Your task to perform on an android device: stop showing notifications on the lock screen Image 0: 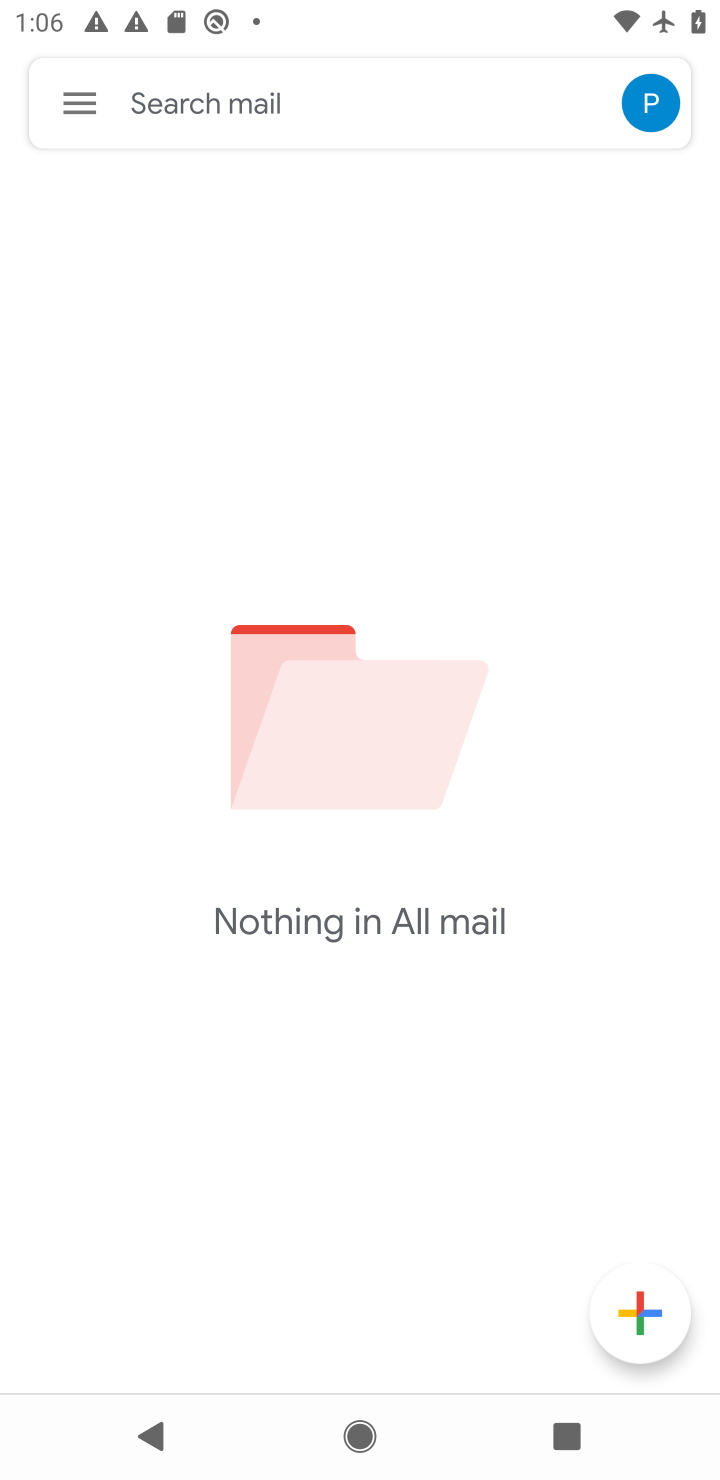
Step 0: press home button
Your task to perform on an android device: stop showing notifications on the lock screen Image 1: 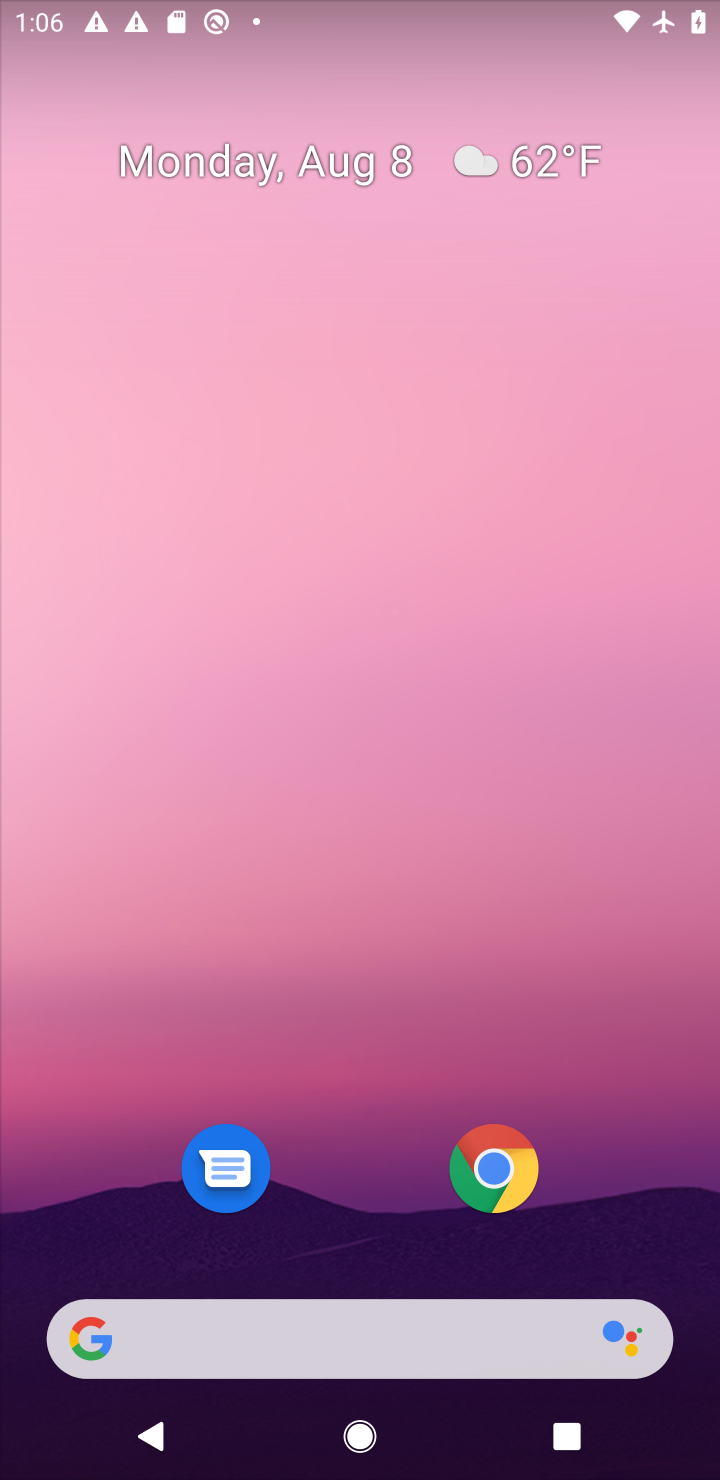
Step 1: drag from (378, 1244) to (170, 52)
Your task to perform on an android device: stop showing notifications on the lock screen Image 2: 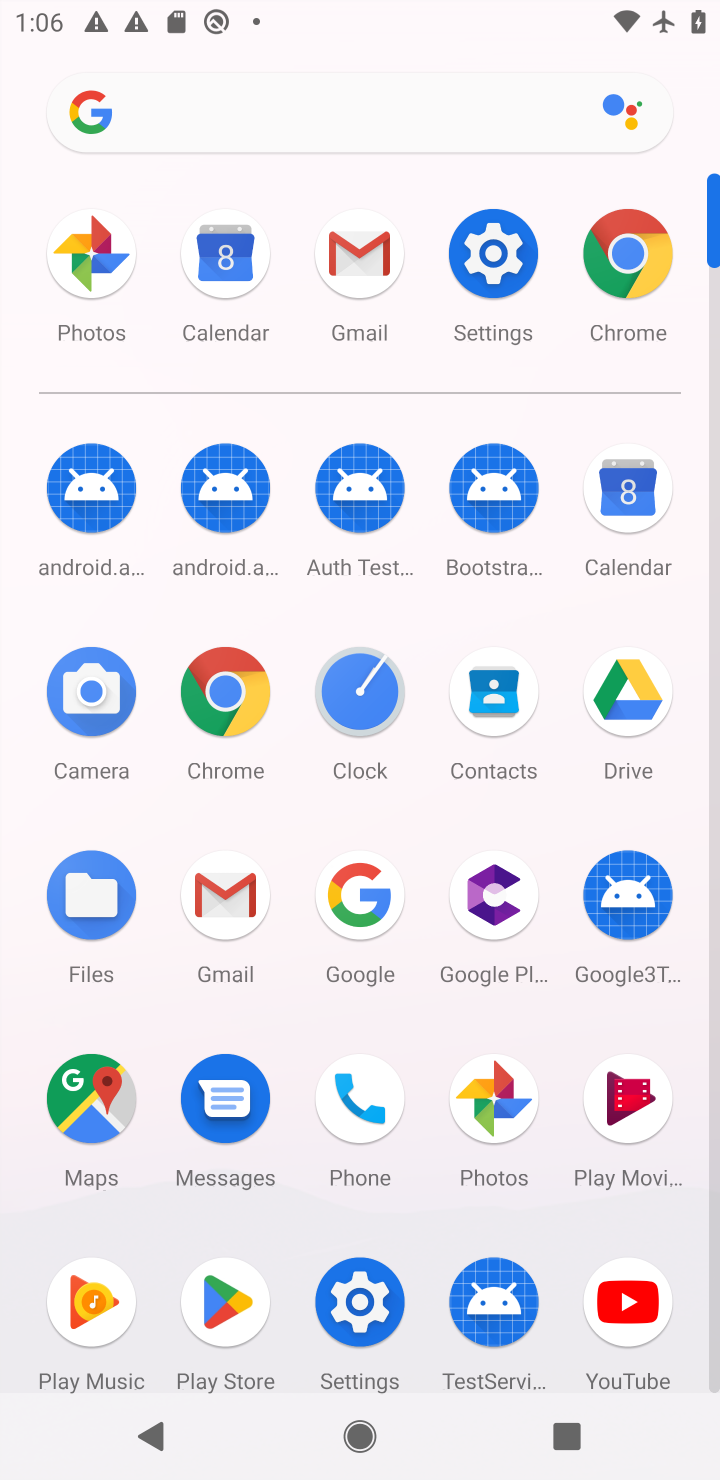
Step 2: click (490, 303)
Your task to perform on an android device: stop showing notifications on the lock screen Image 3: 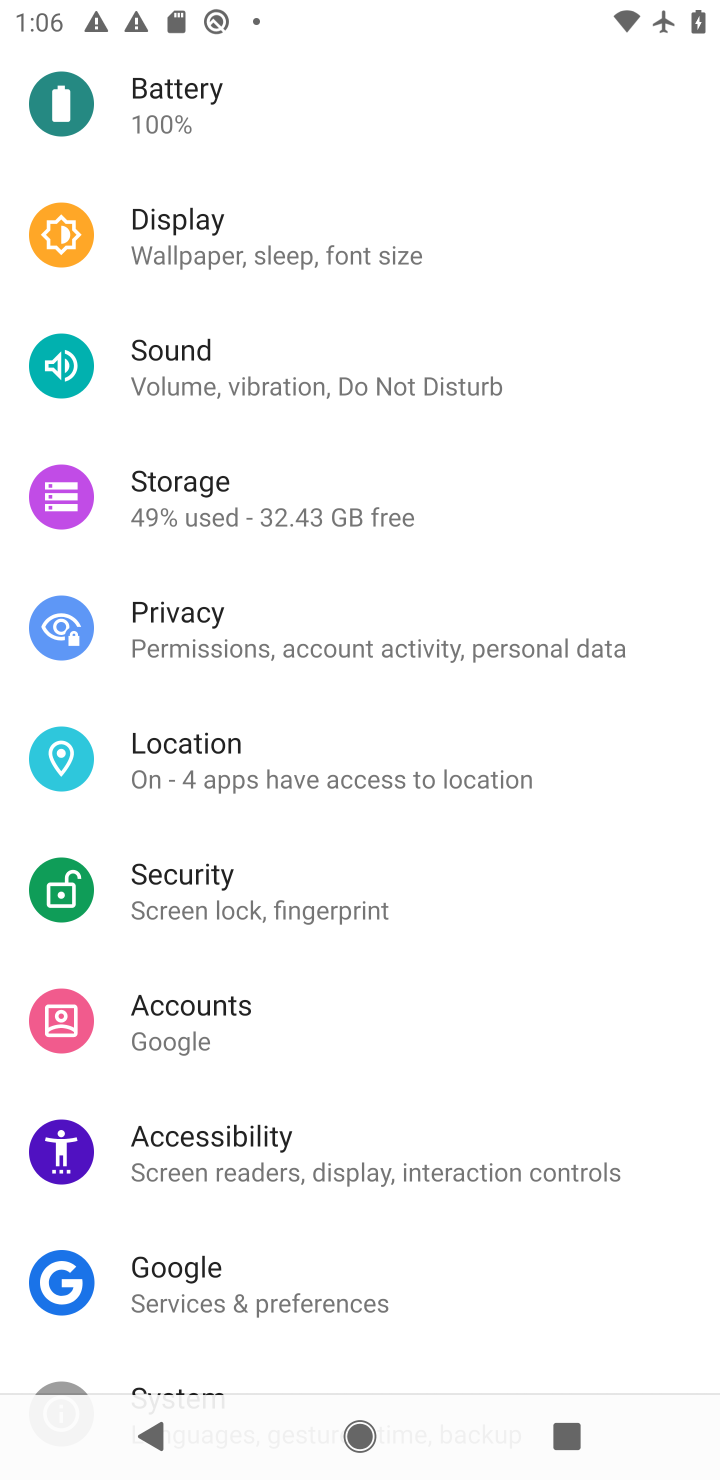
Step 3: drag from (319, 702) to (380, 1378)
Your task to perform on an android device: stop showing notifications on the lock screen Image 4: 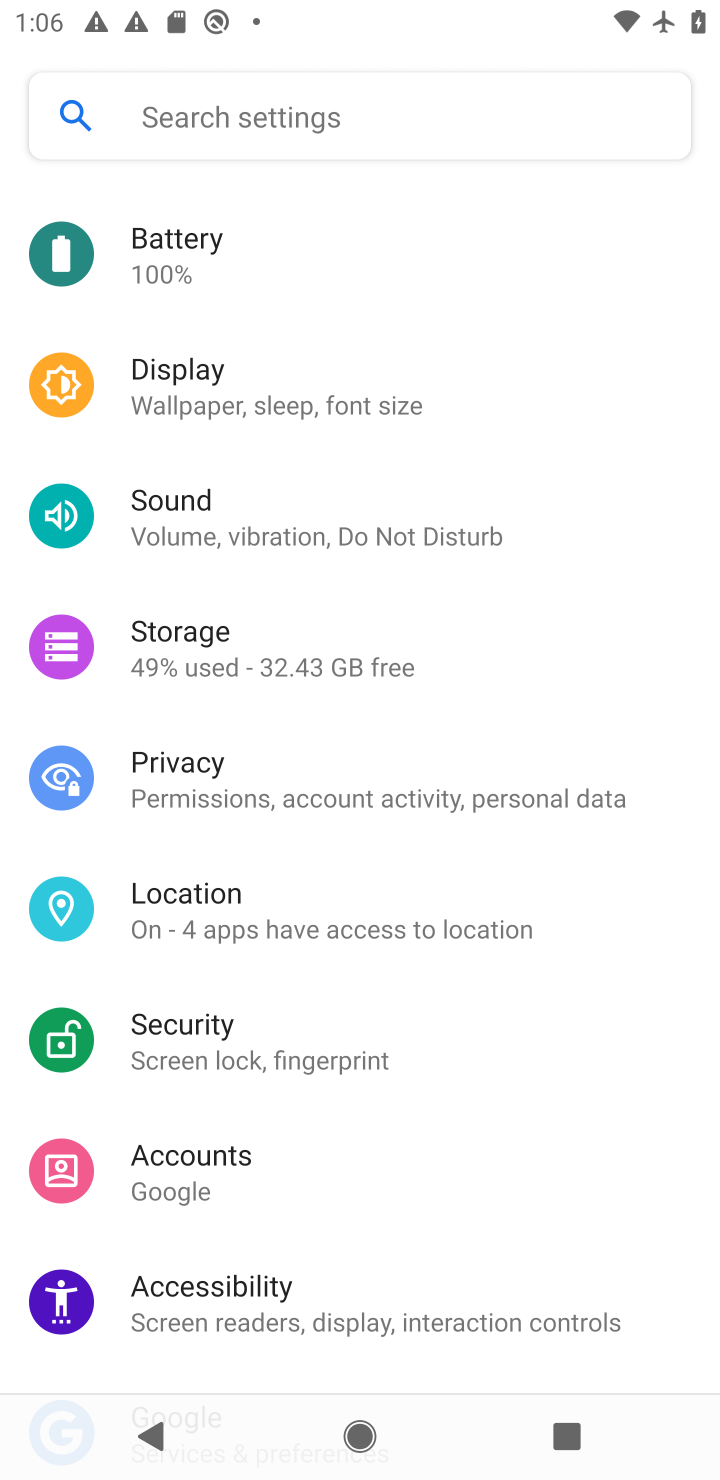
Step 4: drag from (285, 1203) to (368, 55)
Your task to perform on an android device: stop showing notifications on the lock screen Image 5: 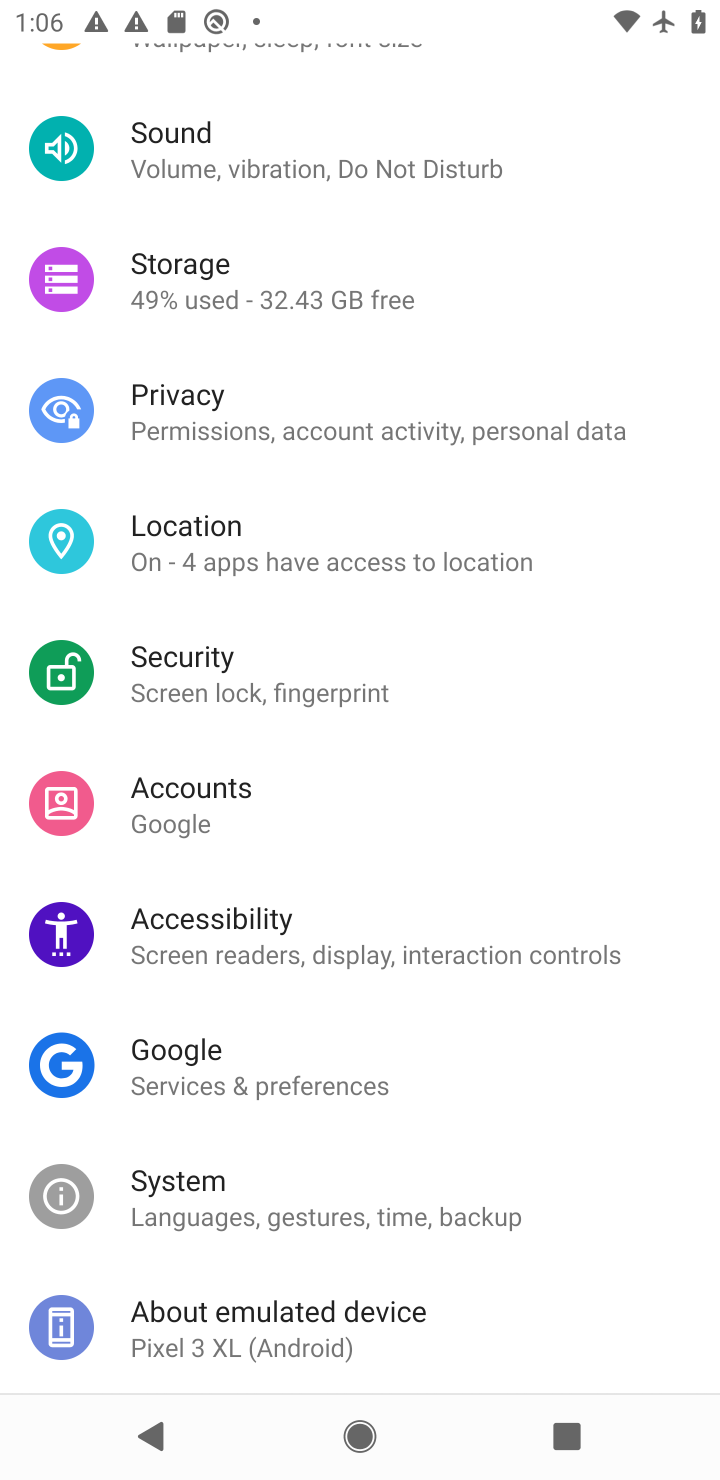
Step 5: drag from (361, 1169) to (433, 480)
Your task to perform on an android device: stop showing notifications on the lock screen Image 6: 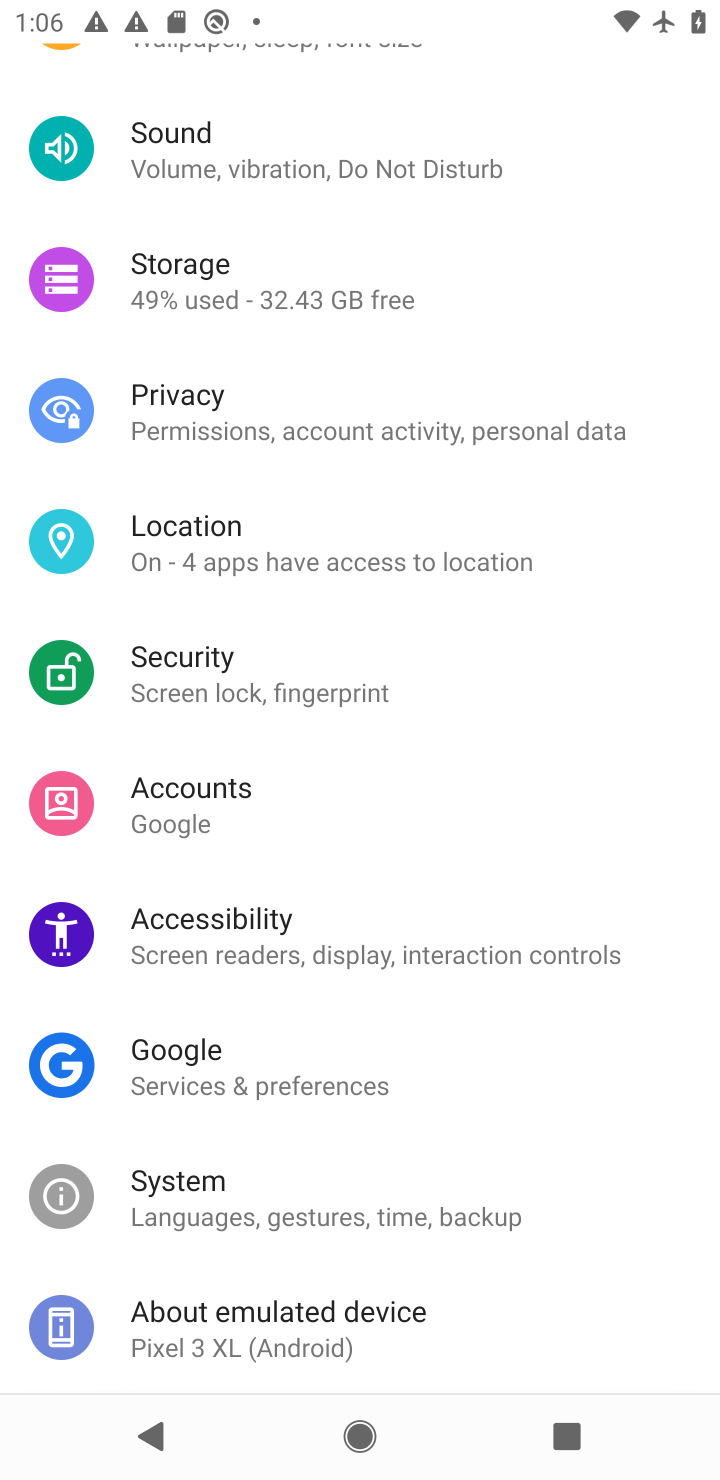
Step 6: drag from (435, 454) to (365, 1413)
Your task to perform on an android device: stop showing notifications on the lock screen Image 7: 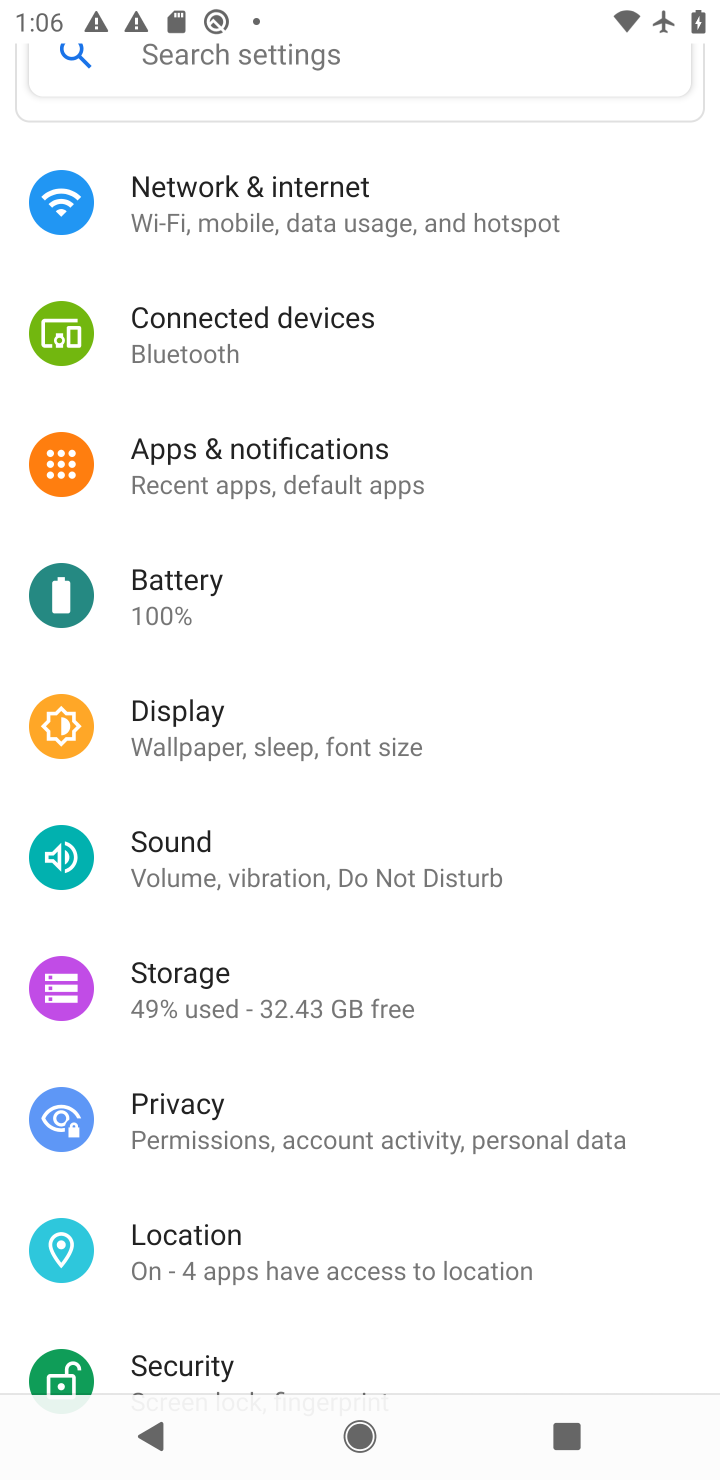
Step 7: click (388, 530)
Your task to perform on an android device: stop showing notifications on the lock screen Image 8: 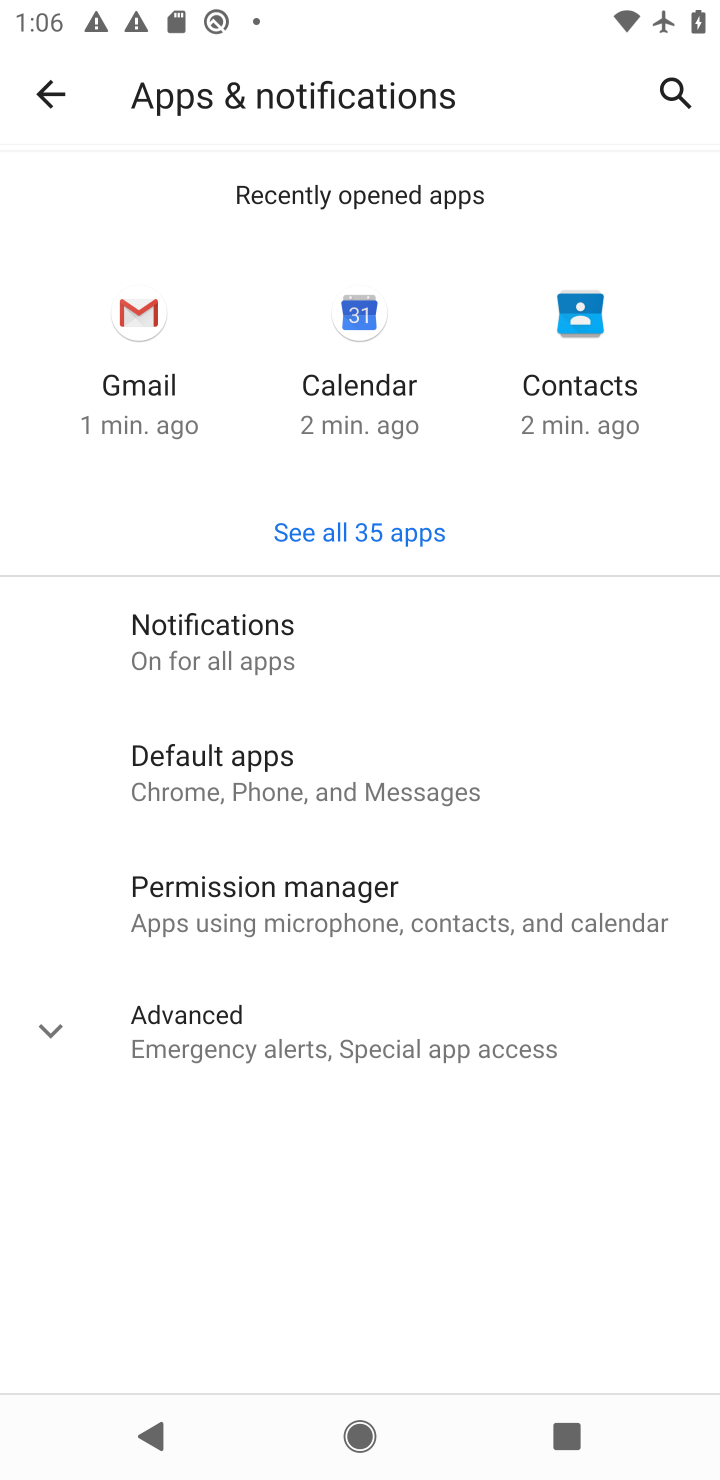
Step 8: task complete